Your task to perform on an android device: move an email to a new category in the gmail app Image 0: 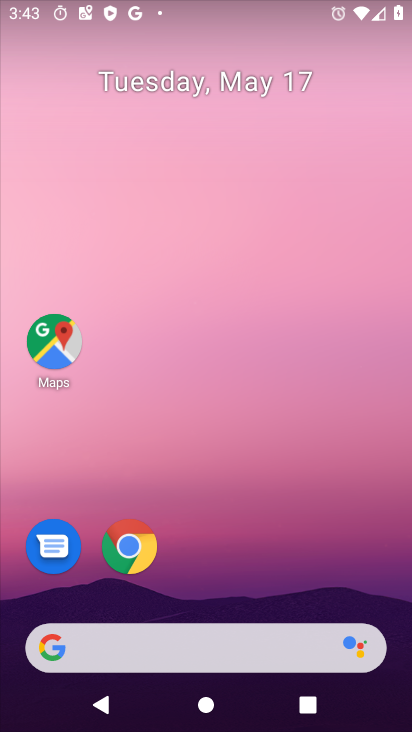
Step 0: click (358, 226)
Your task to perform on an android device: move an email to a new category in the gmail app Image 1: 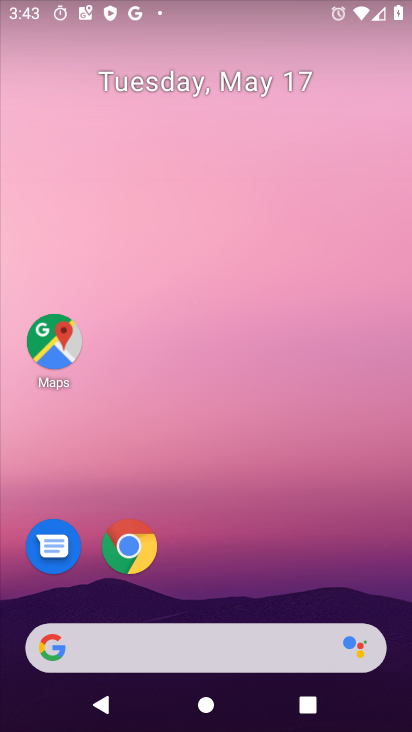
Step 1: drag from (411, 528) to (404, 290)
Your task to perform on an android device: move an email to a new category in the gmail app Image 2: 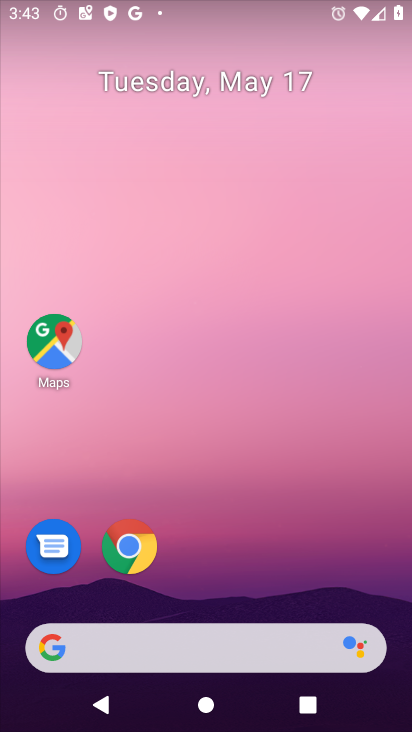
Step 2: drag from (403, 560) to (375, 206)
Your task to perform on an android device: move an email to a new category in the gmail app Image 3: 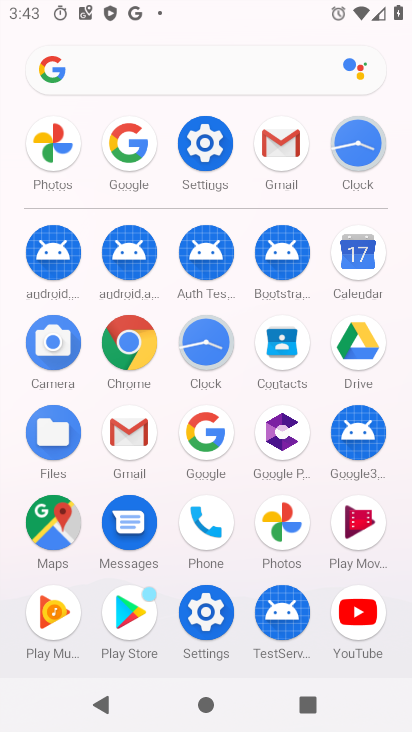
Step 3: click (144, 436)
Your task to perform on an android device: move an email to a new category in the gmail app Image 4: 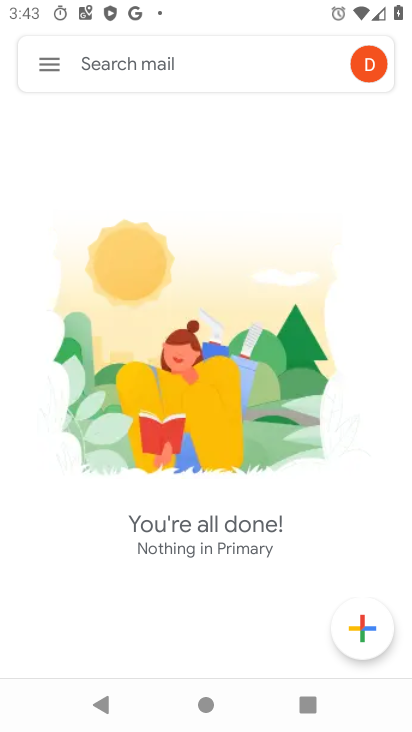
Step 4: click (57, 65)
Your task to perform on an android device: move an email to a new category in the gmail app Image 5: 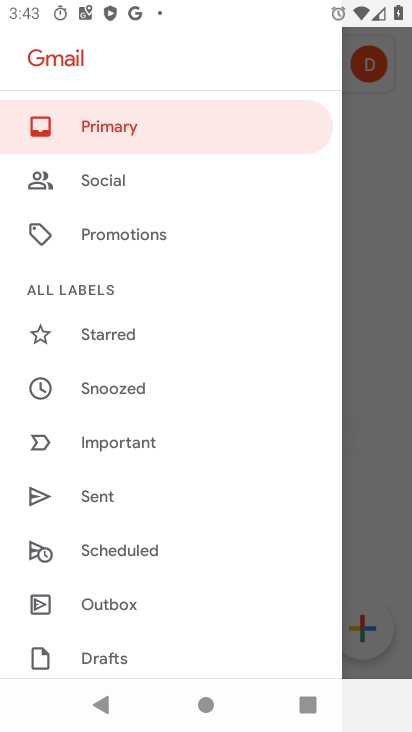
Step 5: click (80, 128)
Your task to perform on an android device: move an email to a new category in the gmail app Image 6: 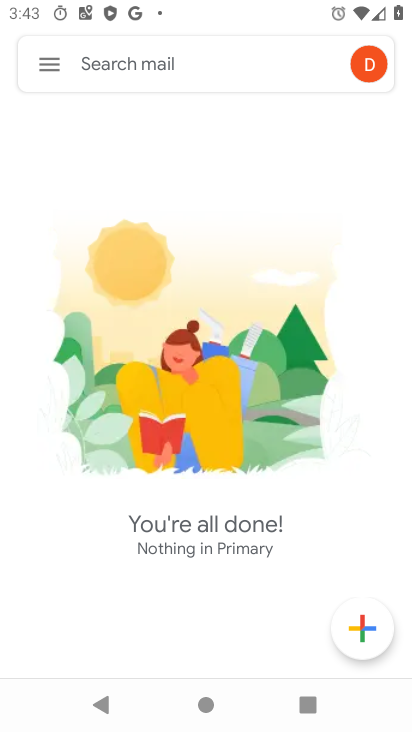
Step 6: task complete